Your task to perform on an android device: Open calendar and show me the first week of next month Image 0: 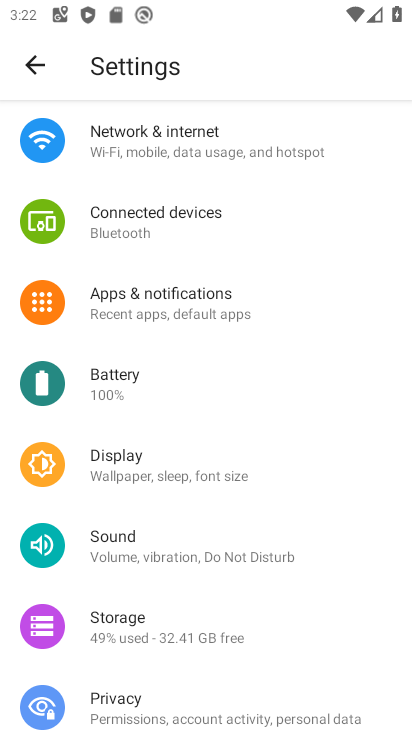
Step 0: press home button
Your task to perform on an android device: Open calendar and show me the first week of next month Image 1: 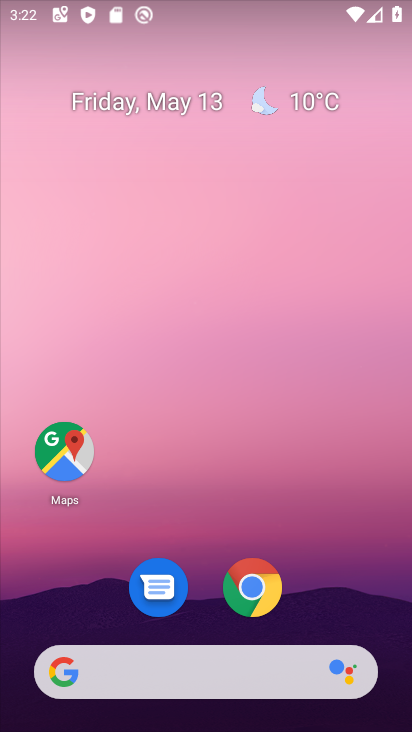
Step 1: drag from (136, 255) to (181, 96)
Your task to perform on an android device: Open calendar and show me the first week of next month Image 2: 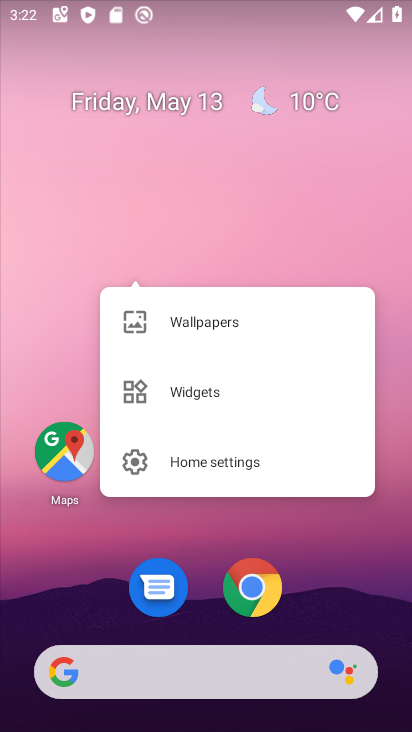
Step 2: click (207, 558)
Your task to perform on an android device: Open calendar and show me the first week of next month Image 3: 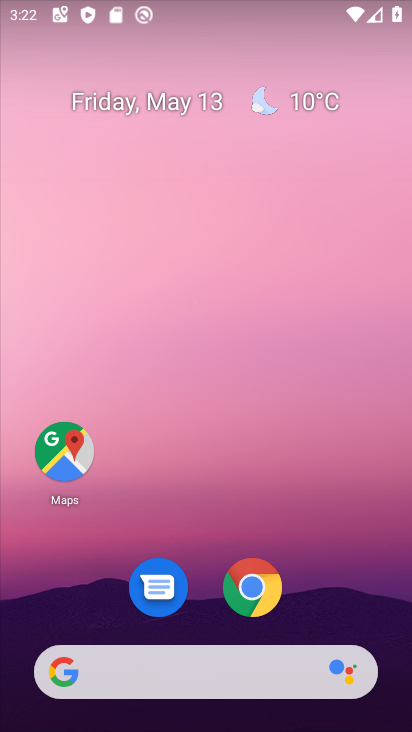
Step 3: drag from (201, 532) to (175, 26)
Your task to perform on an android device: Open calendar and show me the first week of next month Image 4: 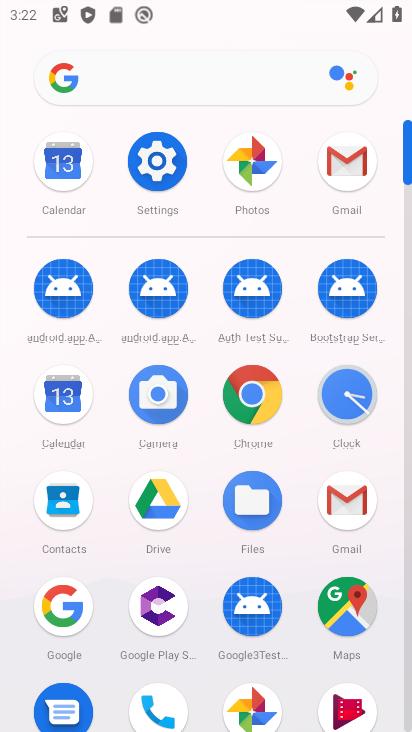
Step 4: click (62, 406)
Your task to perform on an android device: Open calendar and show me the first week of next month Image 5: 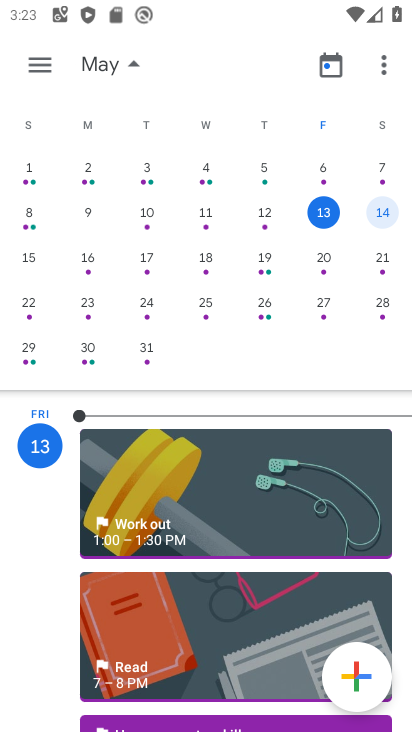
Step 5: task complete